Your task to perform on an android device: Open Google Chrome Image 0: 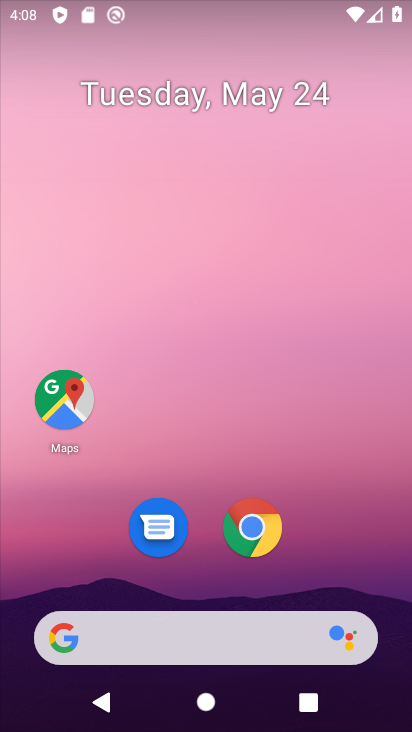
Step 0: click (247, 540)
Your task to perform on an android device: Open Google Chrome Image 1: 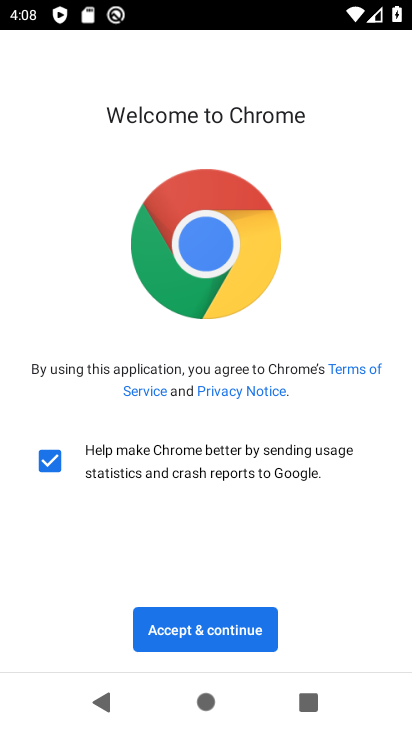
Step 1: click (233, 634)
Your task to perform on an android device: Open Google Chrome Image 2: 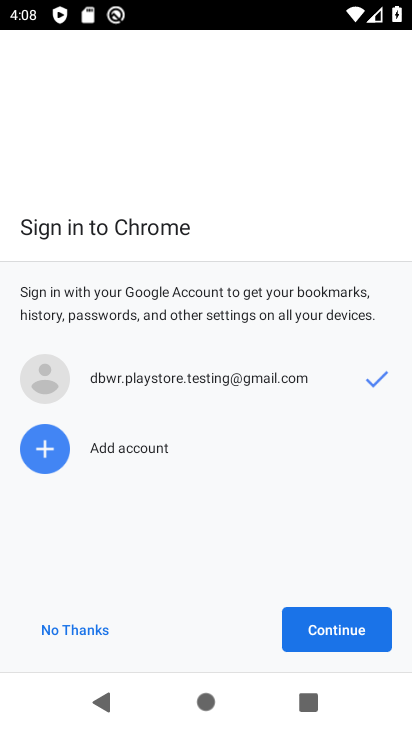
Step 2: click (295, 634)
Your task to perform on an android device: Open Google Chrome Image 3: 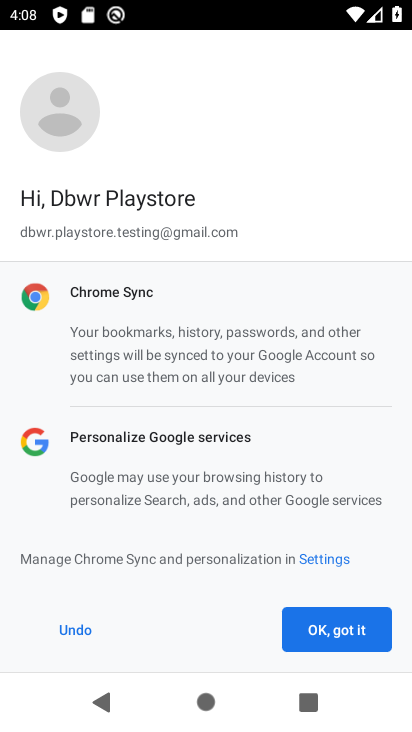
Step 3: click (377, 646)
Your task to perform on an android device: Open Google Chrome Image 4: 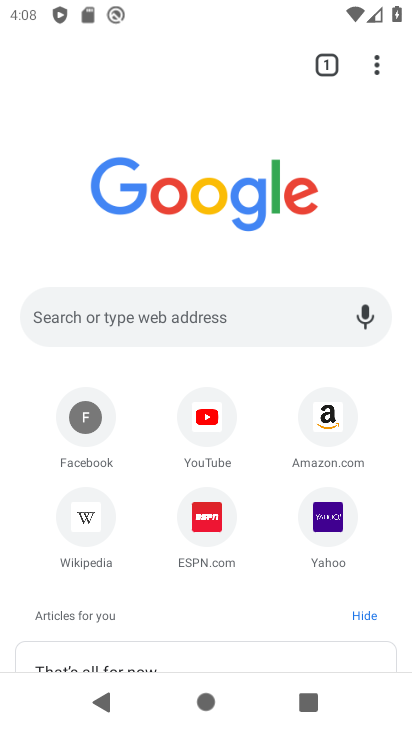
Step 4: task complete